Your task to perform on an android device: Open Youtube and go to the subscriptions tab Image 0: 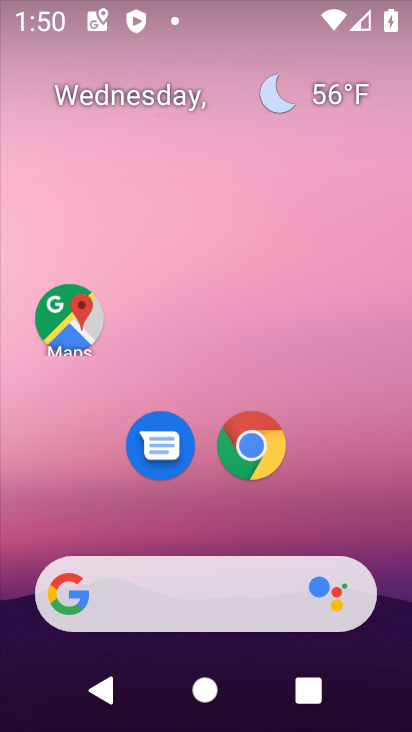
Step 0: drag from (248, 547) to (167, 3)
Your task to perform on an android device: Open Youtube and go to the subscriptions tab Image 1: 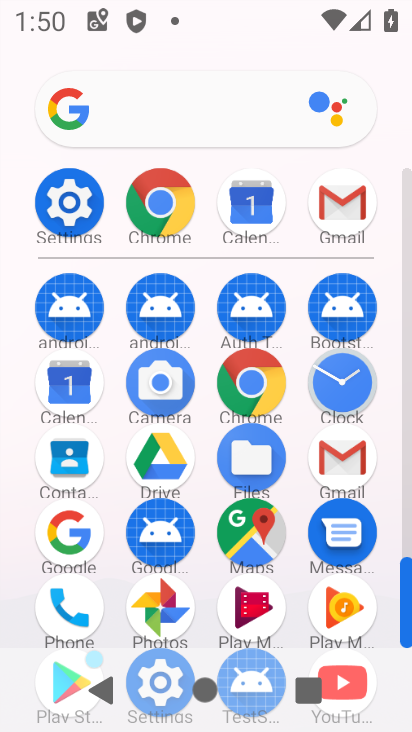
Step 1: drag from (262, 370) to (243, 159)
Your task to perform on an android device: Open Youtube and go to the subscriptions tab Image 2: 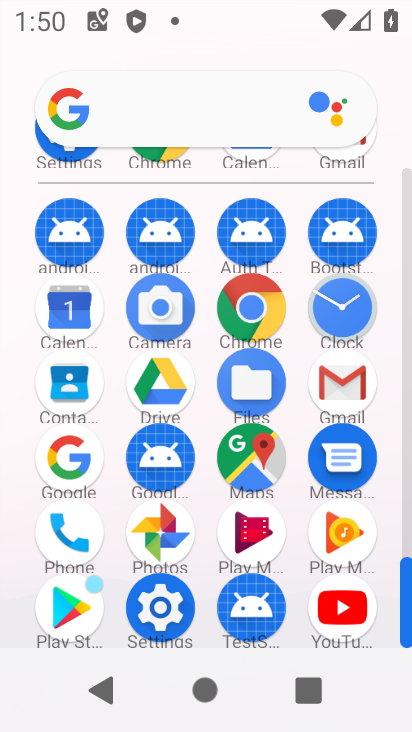
Step 2: click (340, 622)
Your task to perform on an android device: Open Youtube and go to the subscriptions tab Image 3: 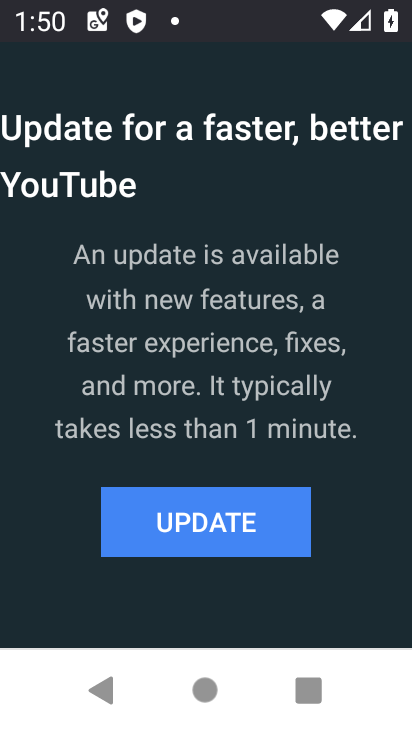
Step 3: click (272, 523)
Your task to perform on an android device: Open Youtube and go to the subscriptions tab Image 4: 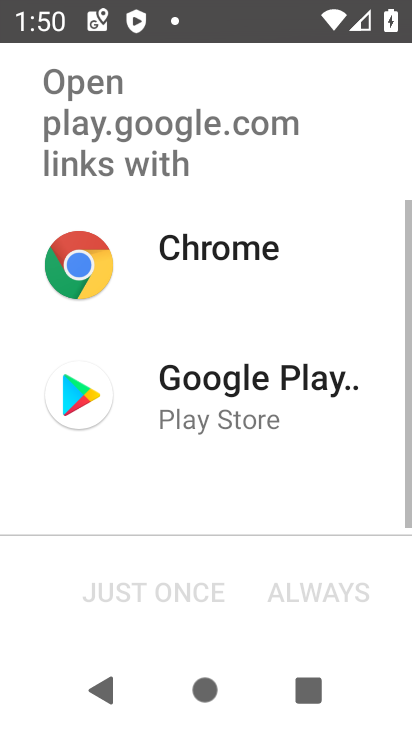
Step 4: click (247, 404)
Your task to perform on an android device: Open Youtube and go to the subscriptions tab Image 5: 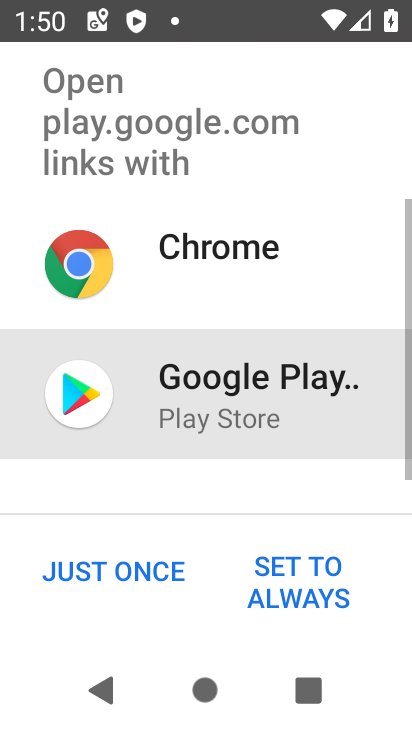
Step 5: click (59, 565)
Your task to perform on an android device: Open Youtube and go to the subscriptions tab Image 6: 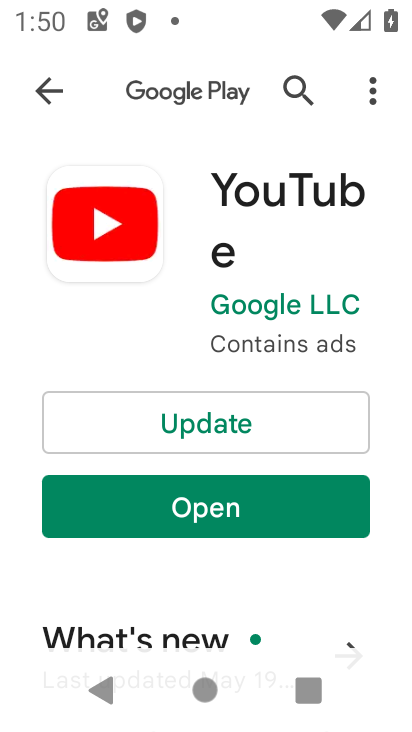
Step 6: click (227, 442)
Your task to perform on an android device: Open Youtube and go to the subscriptions tab Image 7: 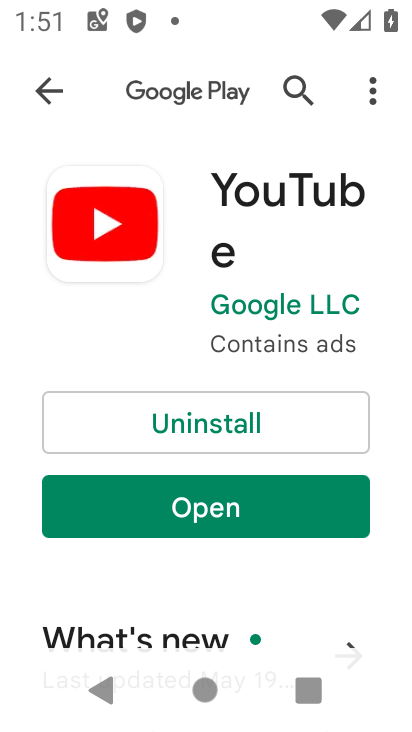
Step 7: click (249, 506)
Your task to perform on an android device: Open Youtube and go to the subscriptions tab Image 8: 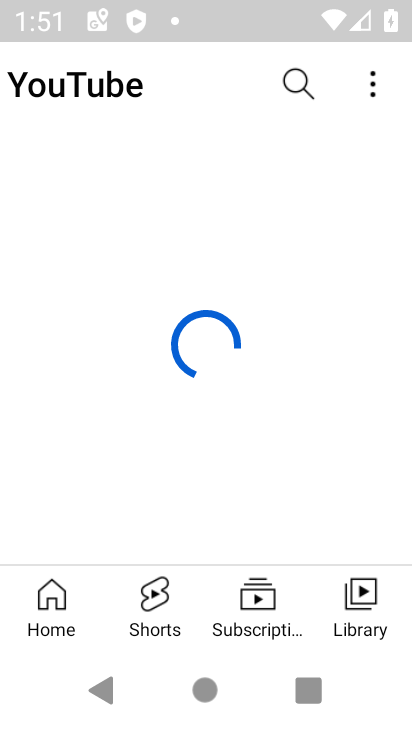
Step 8: click (268, 641)
Your task to perform on an android device: Open Youtube and go to the subscriptions tab Image 9: 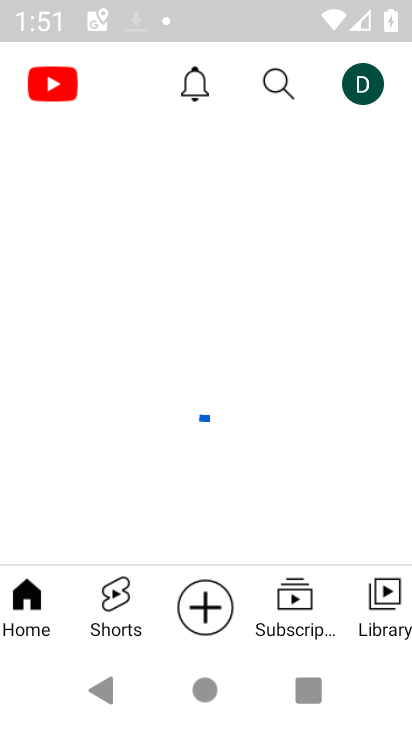
Step 9: task complete